Your task to perform on an android device: Go to accessibility settings Image 0: 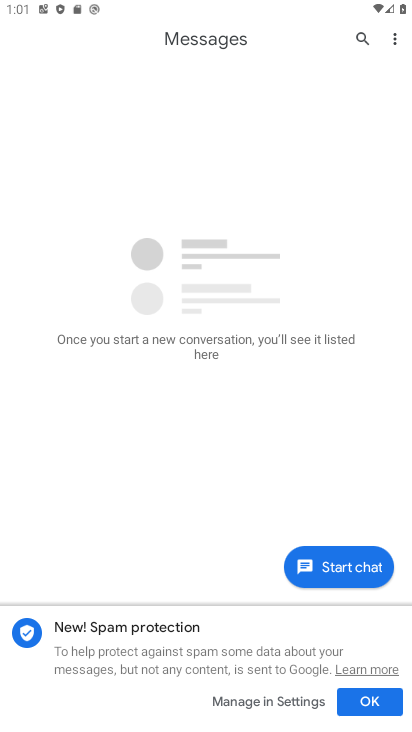
Step 0: press home button
Your task to perform on an android device: Go to accessibility settings Image 1: 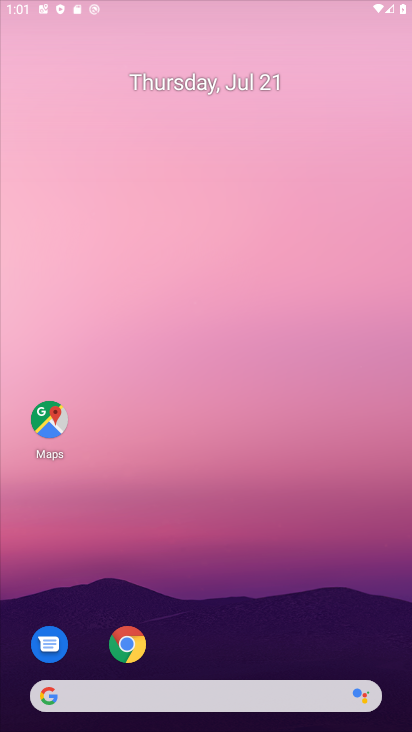
Step 1: drag from (345, 499) to (310, 103)
Your task to perform on an android device: Go to accessibility settings Image 2: 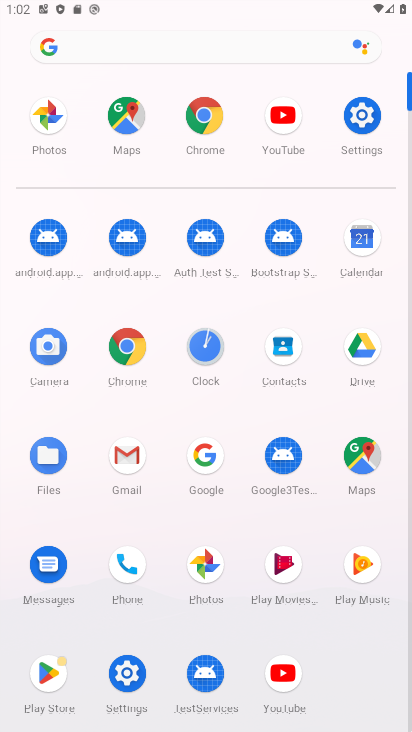
Step 2: click (108, 683)
Your task to perform on an android device: Go to accessibility settings Image 3: 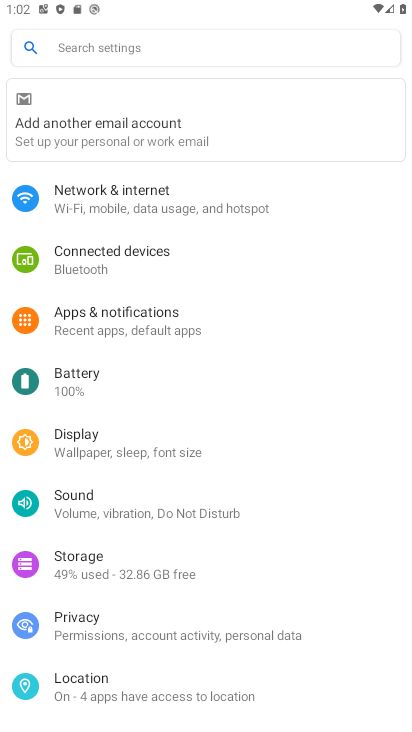
Step 3: drag from (119, 683) to (293, 179)
Your task to perform on an android device: Go to accessibility settings Image 4: 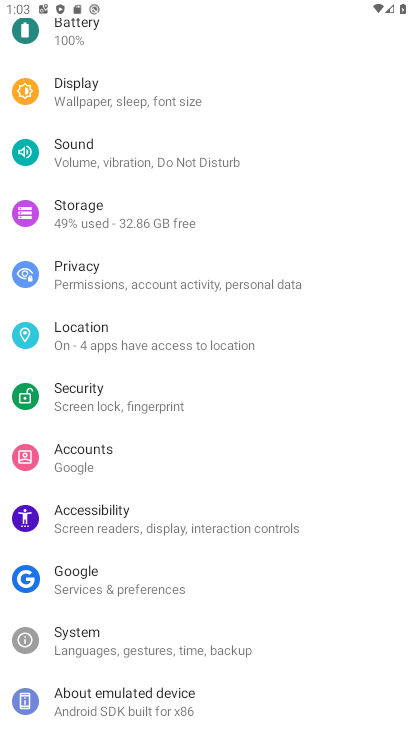
Step 4: click (132, 510)
Your task to perform on an android device: Go to accessibility settings Image 5: 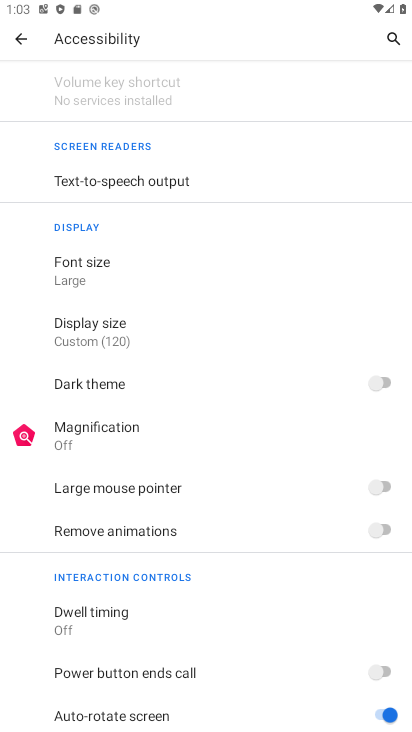
Step 5: task complete